Your task to perform on an android device: Open Google Image 0: 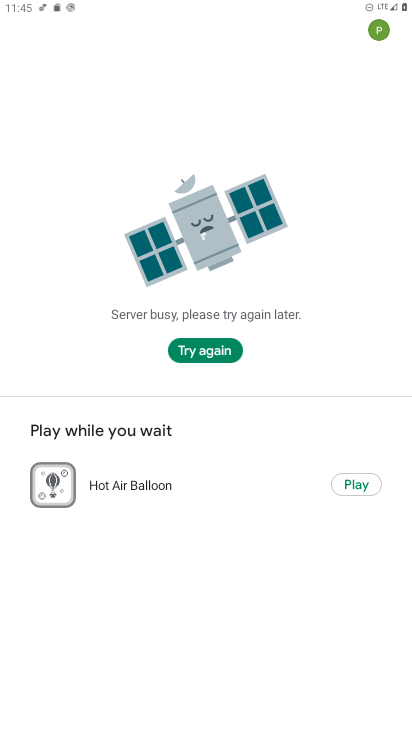
Step 0: press home button
Your task to perform on an android device: Open Google Image 1: 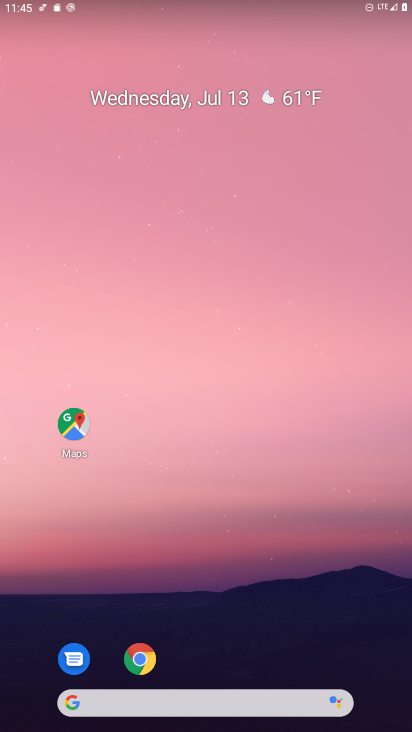
Step 1: click (140, 656)
Your task to perform on an android device: Open Google Image 2: 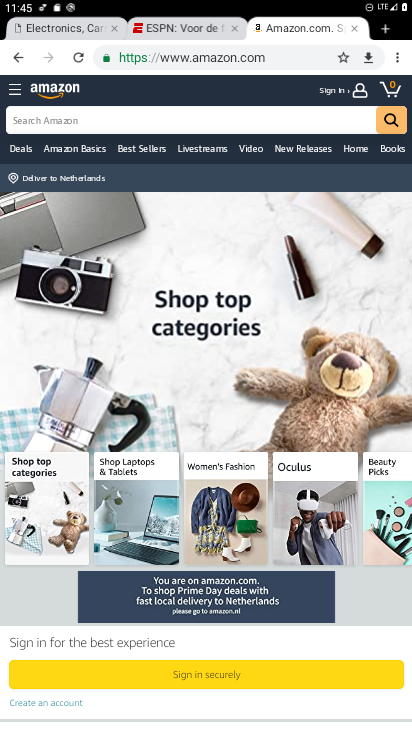
Step 2: task complete